Your task to perform on an android device: open app "DoorDash - Dasher" Image 0: 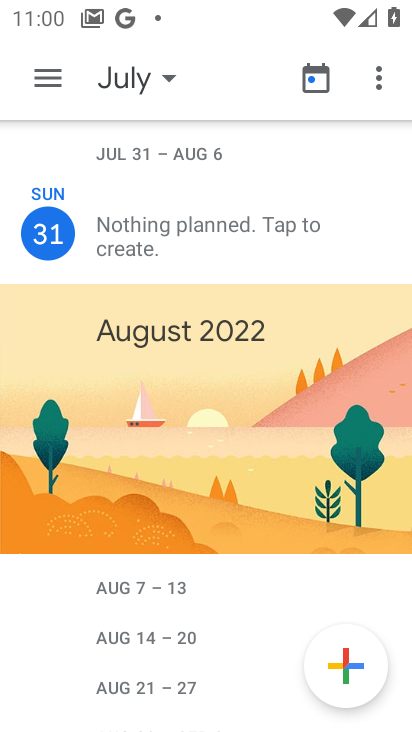
Step 0: press back button
Your task to perform on an android device: open app "DoorDash - Dasher" Image 1: 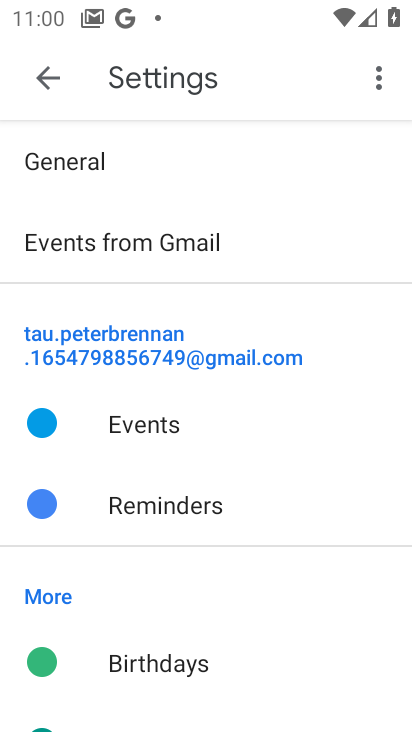
Step 1: press back button
Your task to perform on an android device: open app "DoorDash - Dasher" Image 2: 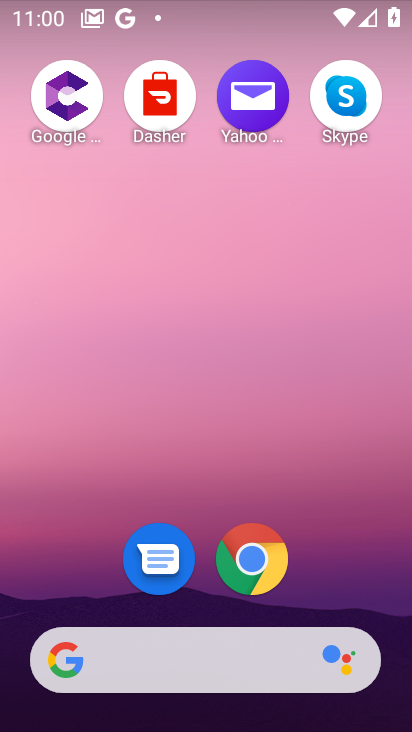
Step 2: drag from (62, 595) to (114, 88)
Your task to perform on an android device: open app "DoorDash - Dasher" Image 3: 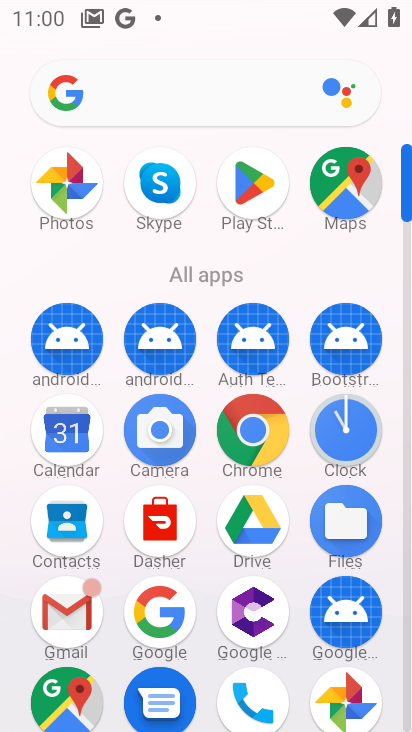
Step 3: click (251, 188)
Your task to perform on an android device: open app "DoorDash - Dasher" Image 4: 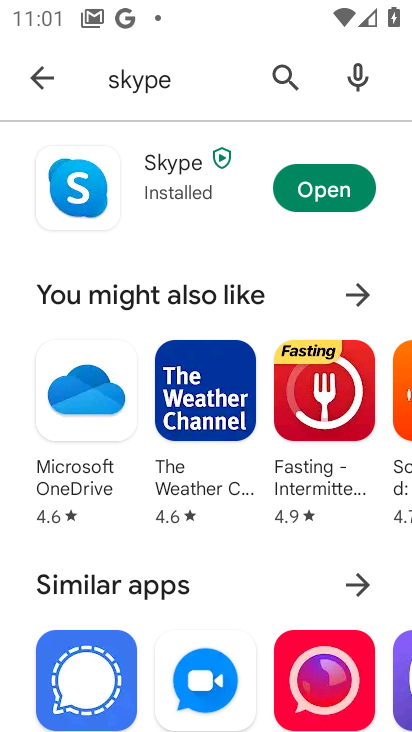
Step 4: click (281, 74)
Your task to perform on an android device: open app "DoorDash - Dasher" Image 5: 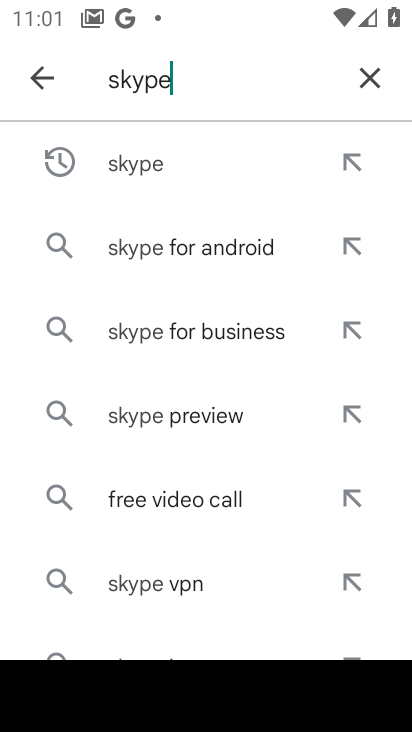
Step 5: click (359, 80)
Your task to perform on an android device: open app "DoorDash - Dasher" Image 6: 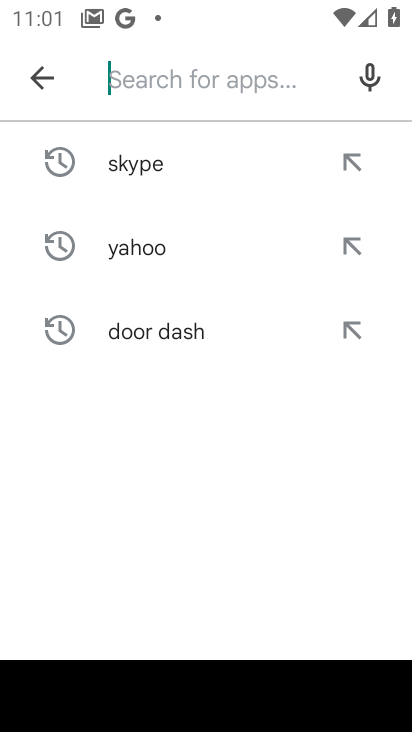
Step 6: click (115, 82)
Your task to perform on an android device: open app "DoorDash - Dasher" Image 7: 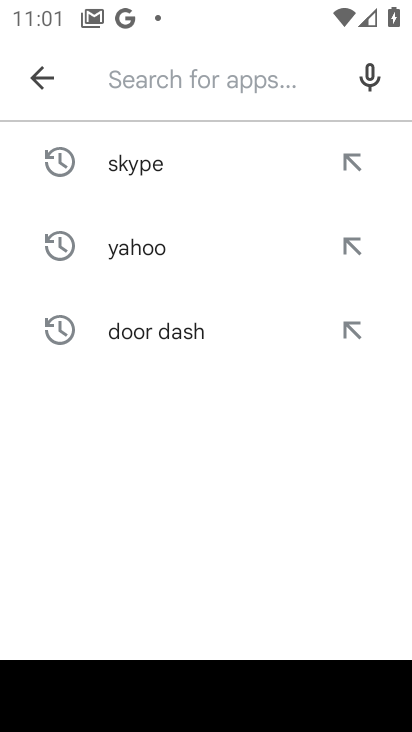
Step 7: click (162, 325)
Your task to perform on an android device: open app "DoorDash - Dasher" Image 8: 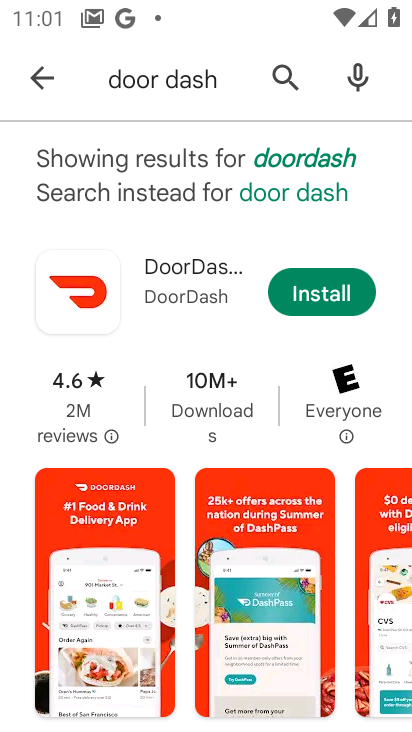
Step 8: drag from (93, 549) to (231, 79)
Your task to perform on an android device: open app "DoorDash - Dasher" Image 9: 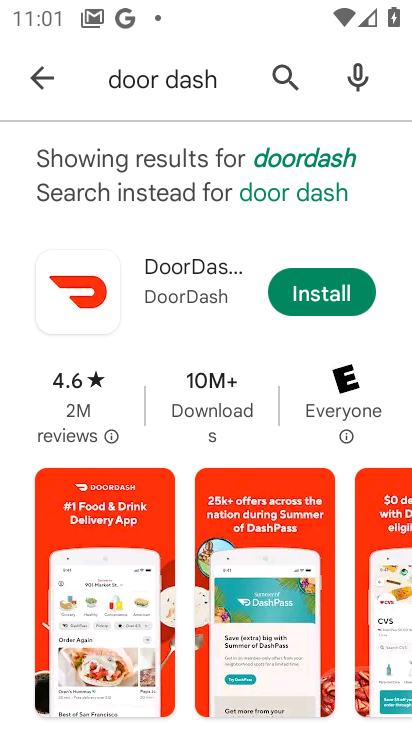
Step 9: drag from (203, 633) to (226, 83)
Your task to perform on an android device: open app "DoorDash - Dasher" Image 10: 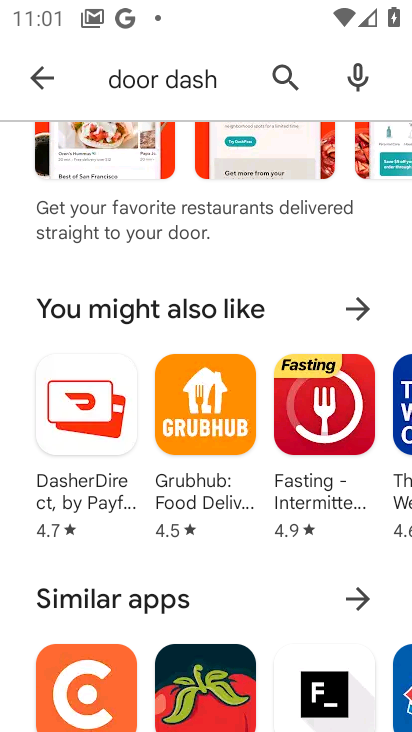
Step 10: drag from (150, 582) to (229, 268)
Your task to perform on an android device: open app "DoorDash - Dasher" Image 11: 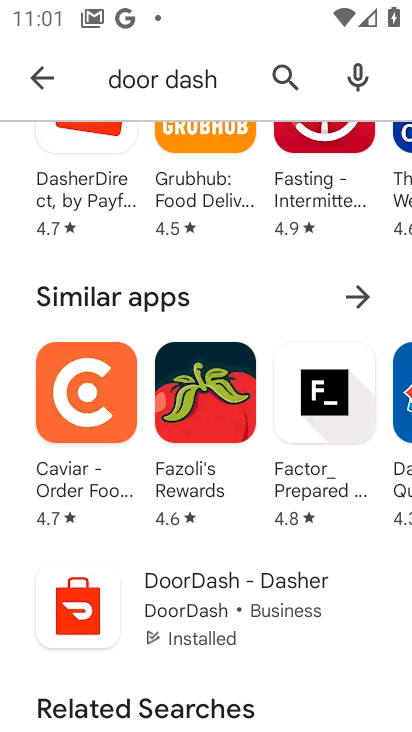
Step 11: click (155, 613)
Your task to perform on an android device: open app "DoorDash - Dasher" Image 12: 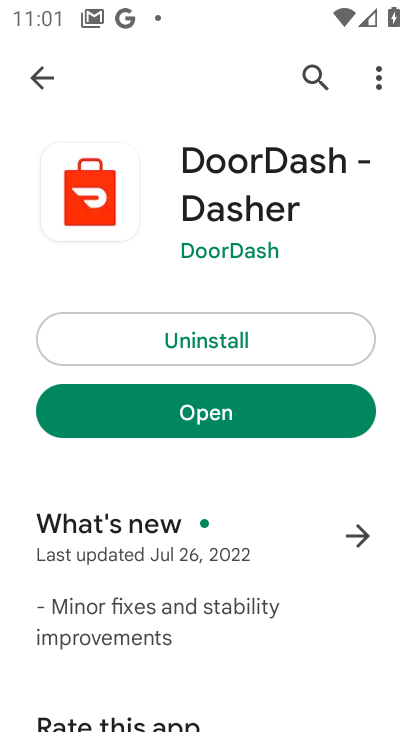
Step 12: click (177, 410)
Your task to perform on an android device: open app "DoorDash - Dasher" Image 13: 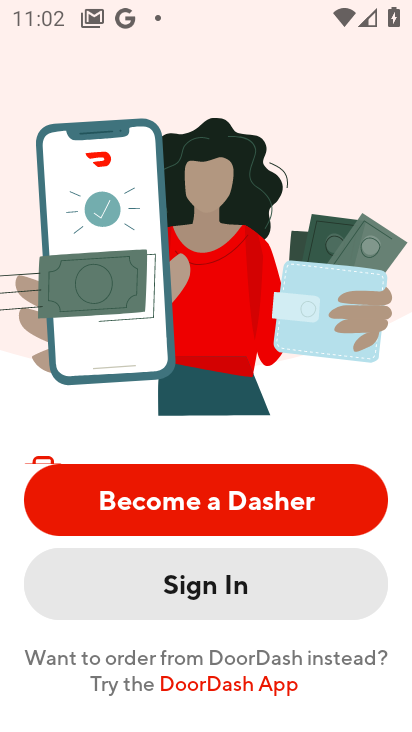
Step 13: task complete